Your task to perform on an android device: Go to sound settings Image 0: 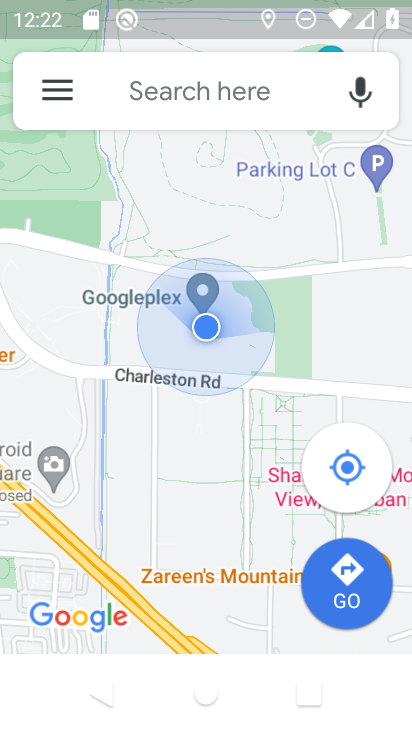
Step 0: press home button
Your task to perform on an android device: Go to sound settings Image 1: 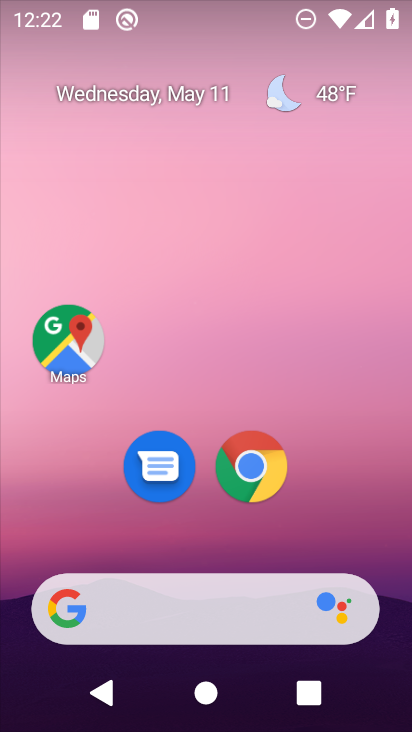
Step 1: drag from (207, 547) to (241, 51)
Your task to perform on an android device: Go to sound settings Image 2: 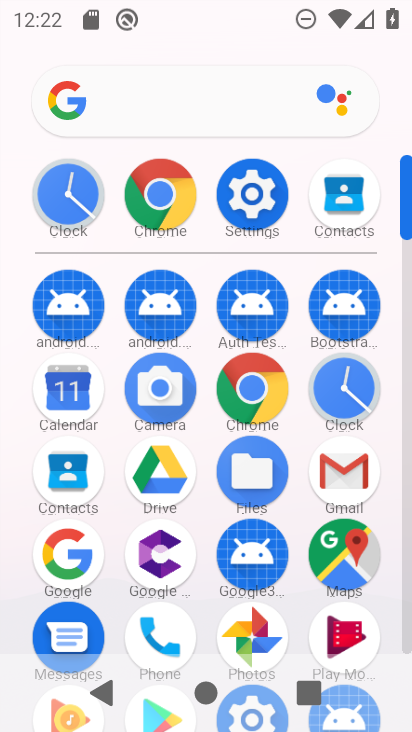
Step 2: click (253, 189)
Your task to perform on an android device: Go to sound settings Image 3: 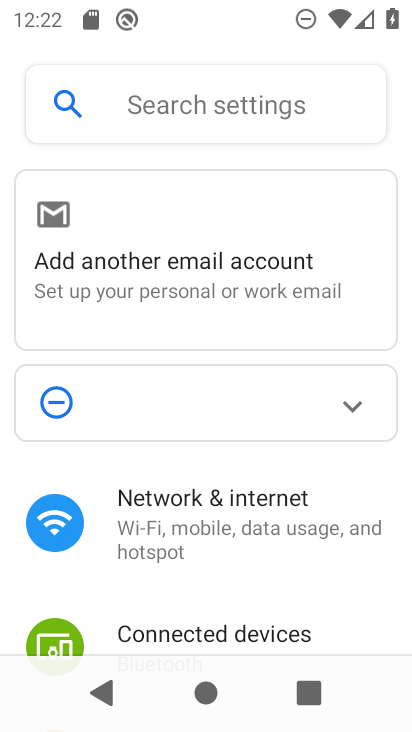
Step 3: drag from (207, 614) to (239, 23)
Your task to perform on an android device: Go to sound settings Image 4: 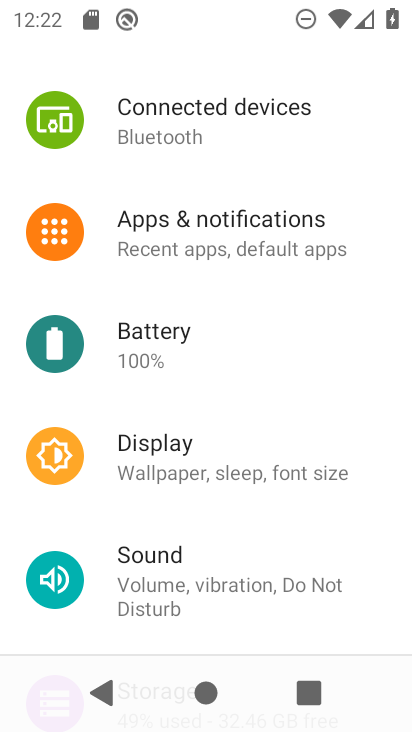
Step 4: click (187, 570)
Your task to perform on an android device: Go to sound settings Image 5: 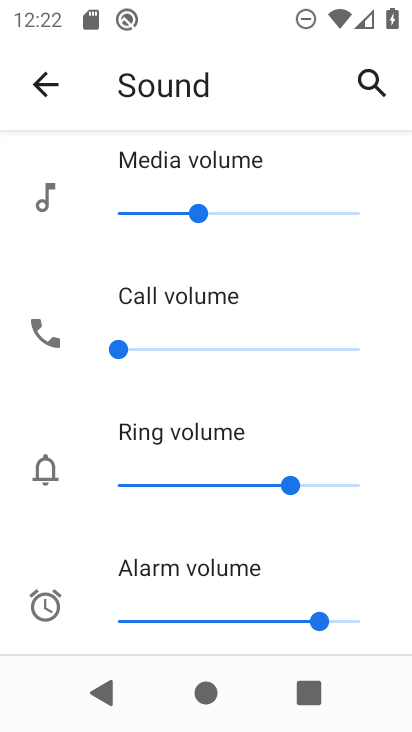
Step 5: drag from (197, 598) to (255, 110)
Your task to perform on an android device: Go to sound settings Image 6: 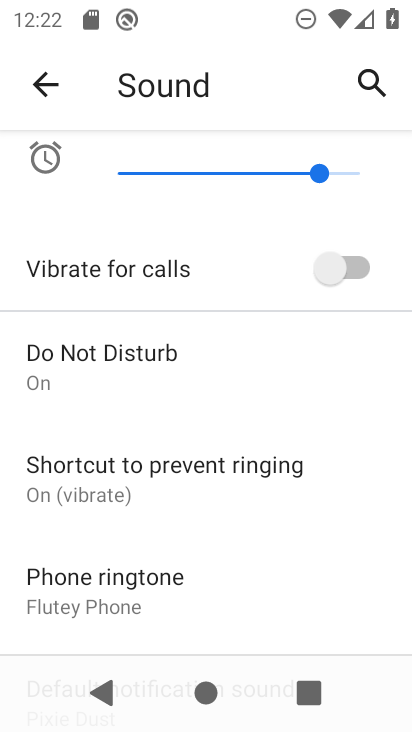
Step 6: drag from (207, 588) to (255, 123)
Your task to perform on an android device: Go to sound settings Image 7: 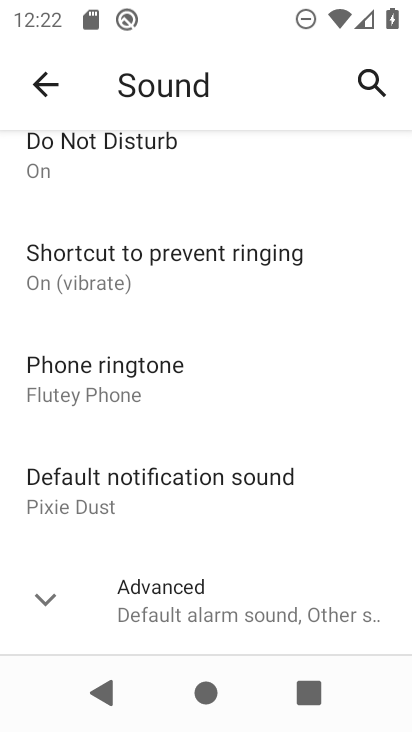
Step 7: click (44, 591)
Your task to perform on an android device: Go to sound settings Image 8: 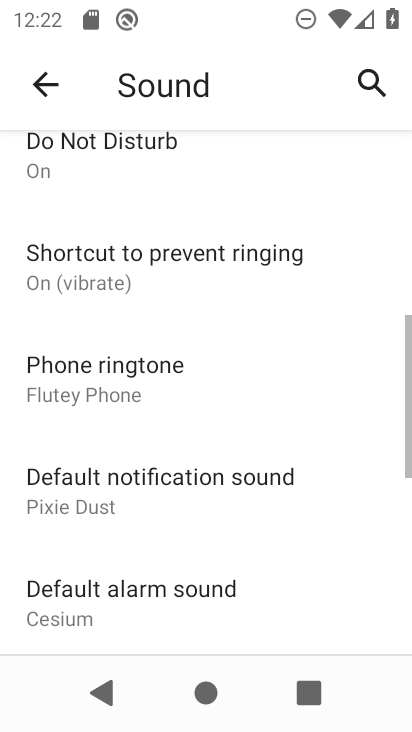
Step 8: task complete